Your task to perform on an android device: Go to Reddit.com Image 0: 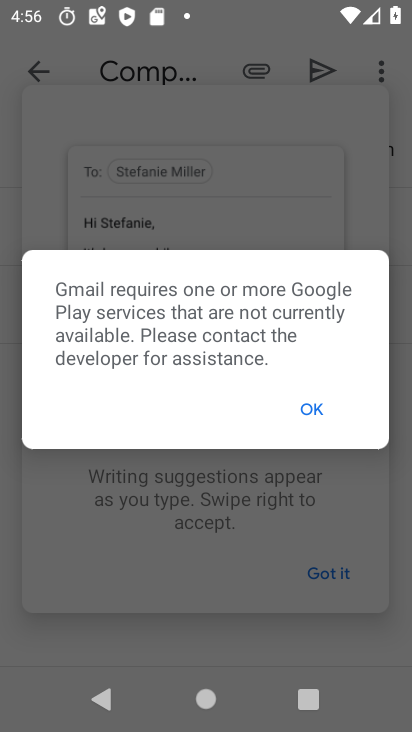
Step 0: task complete